Your task to perform on an android device: change notification settings in the gmail app Image 0: 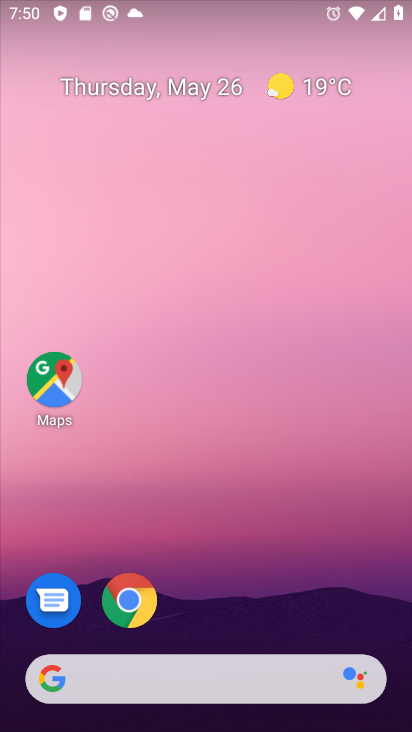
Step 0: press home button
Your task to perform on an android device: change notification settings in the gmail app Image 1: 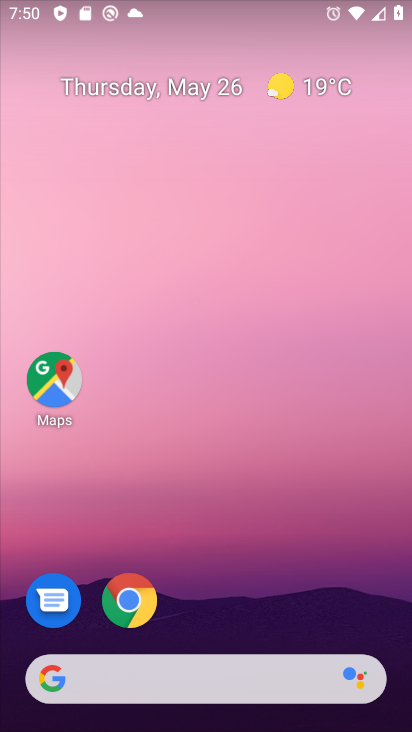
Step 1: drag from (262, 608) to (280, 126)
Your task to perform on an android device: change notification settings in the gmail app Image 2: 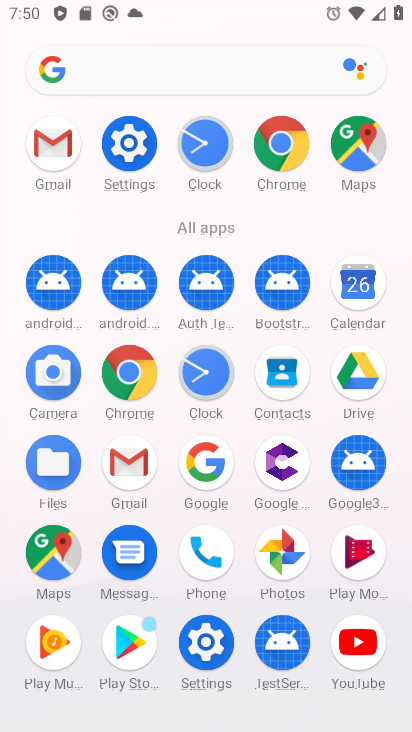
Step 2: click (48, 150)
Your task to perform on an android device: change notification settings in the gmail app Image 3: 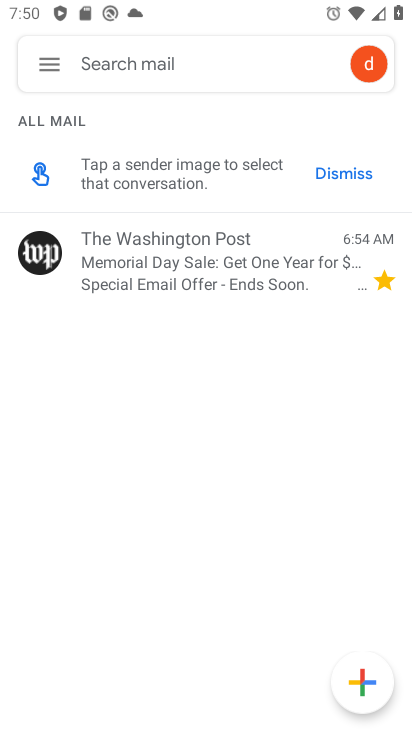
Step 3: click (53, 63)
Your task to perform on an android device: change notification settings in the gmail app Image 4: 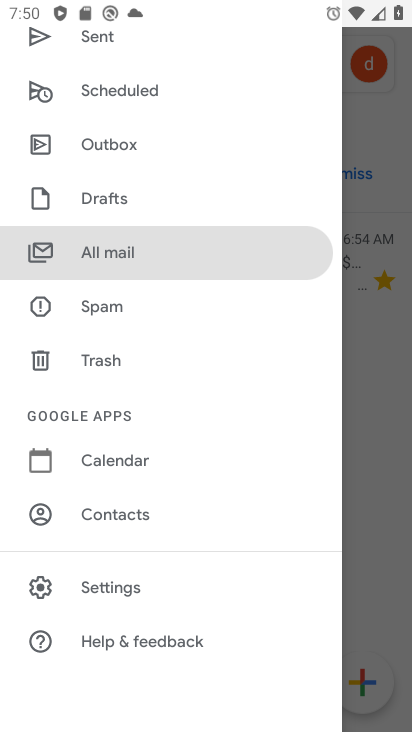
Step 4: click (101, 593)
Your task to perform on an android device: change notification settings in the gmail app Image 5: 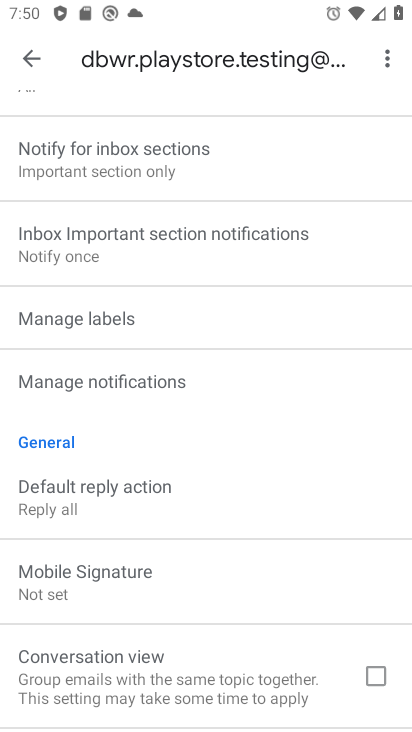
Step 5: click (29, 59)
Your task to perform on an android device: change notification settings in the gmail app Image 6: 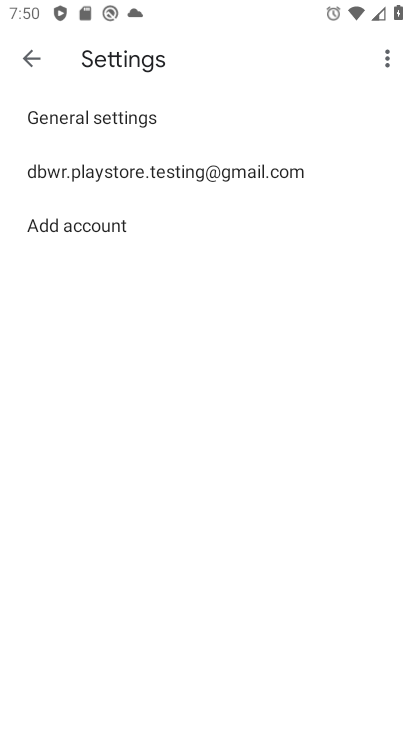
Step 6: click (96, 116)
Your task to perform on an android device: change notification settings in the gmail app Image 7: 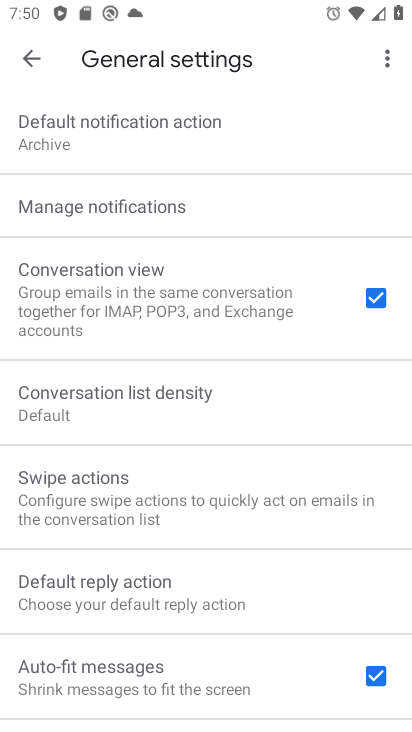
Step 7: click (104, 211)
Your task to perform on an android device: change notification settings in the gmail app Image 8: 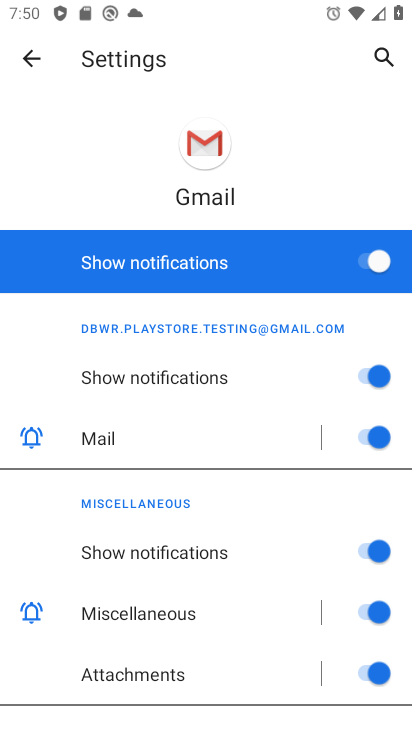
Step 8: click (382, 260)
Your task to perform on an android device: change notification settings in the gmail app Image 9: 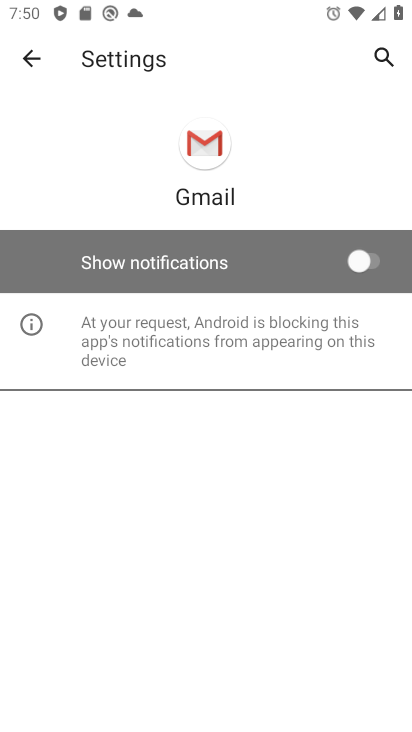
Step 9: task complete